Your task to perform on an android device: all mails in gmail Image 0: 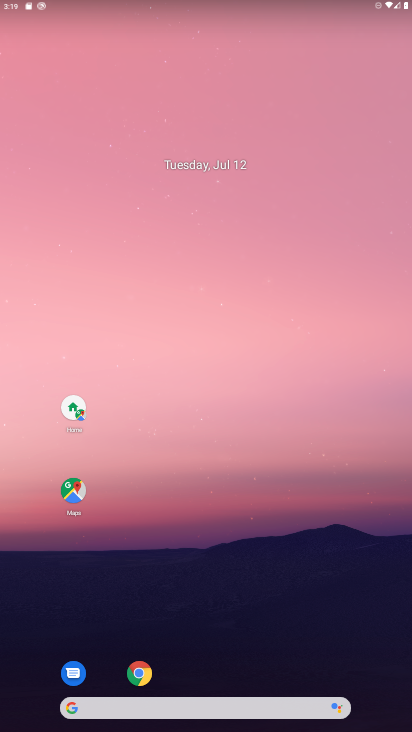
Step 0: drag from (269, 650) to (269, 274)
Your task to perform on an android device: all mails in gmail Image 1: 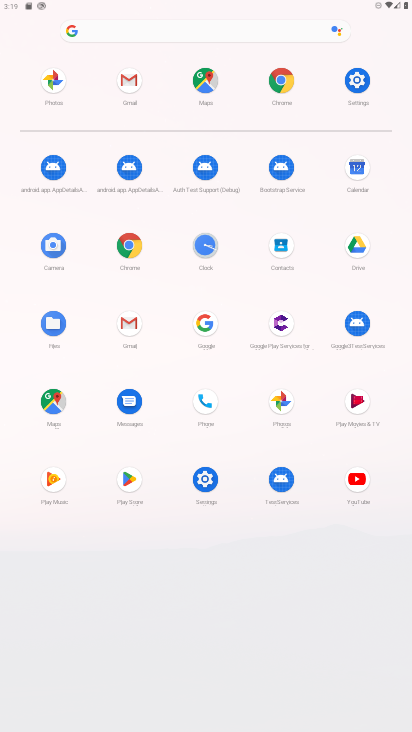
Step 1: click (132, 77)
Your task to perform on an android device: all mails in gmail Image 2: 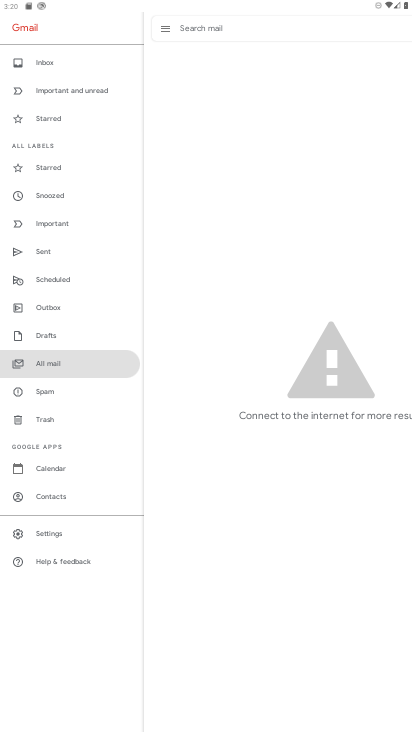
Step 2: task complete